Your task to perform on an android device: add a contact Image 0: 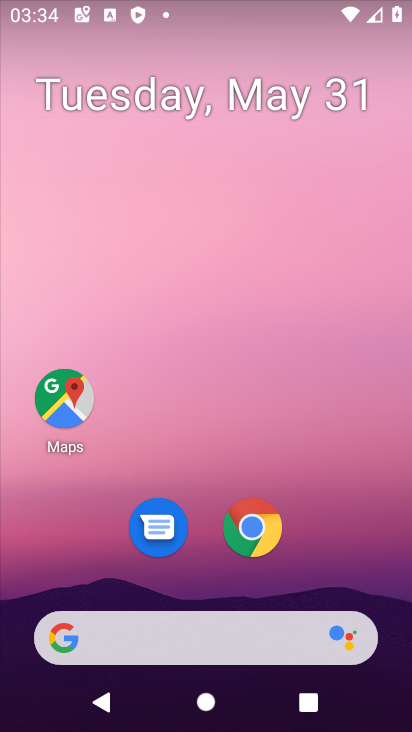
Step 0: drag from (397, 633) to (315, 2)
Your task to perform on an android device: add a contact Image 1: 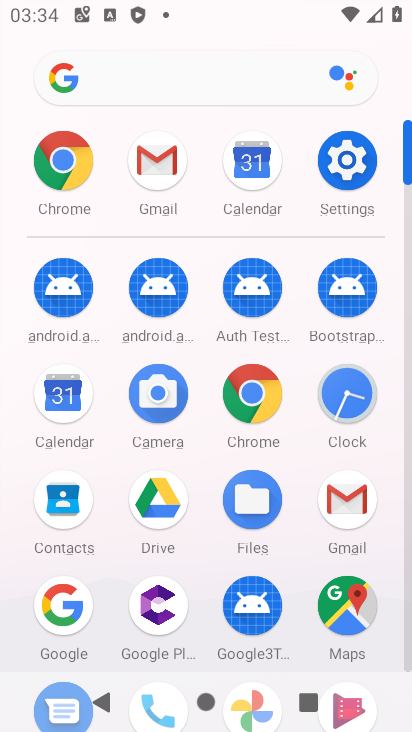
Step 1: click (66, 515)
Your task to perform on an android device: add a contact Image 2: 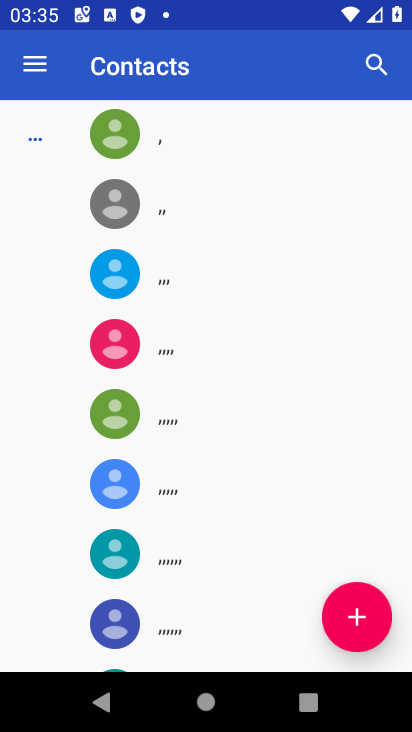
Step 2: click (358, 614)
Your task to perform on an android device: add a contact Image 3: 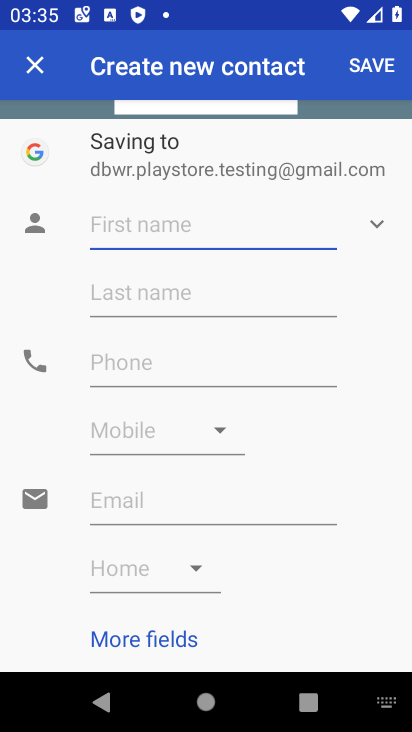
Step 3: type "jfghdfsdfgfh"
Your task to perform on an android device: add a contact Image 4: 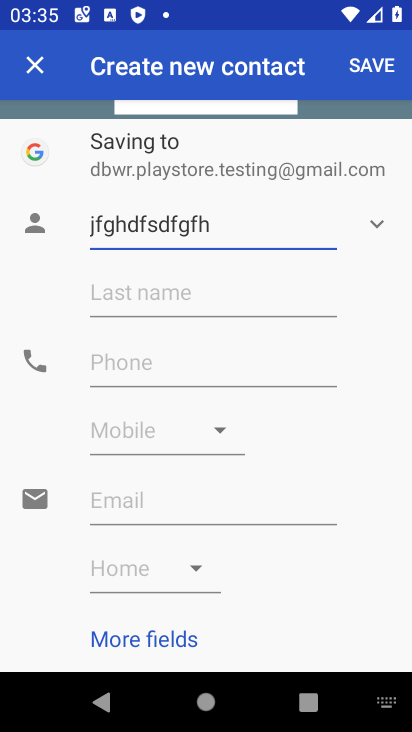
Step 4: click (146, 365)
Your task to perform on an android device: add a contact Image 5: 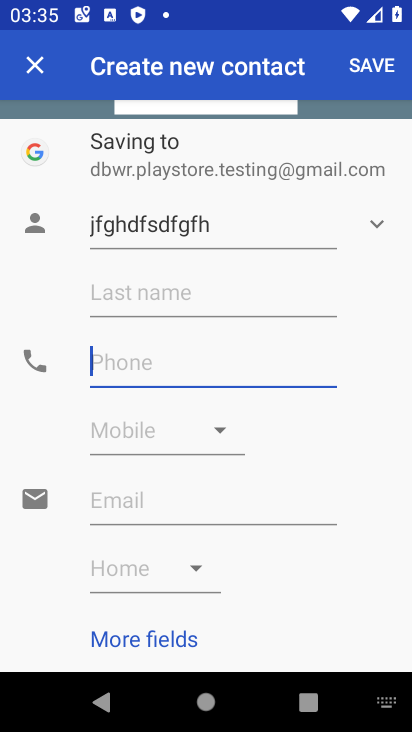
Step 5: type "0987654345"
Your task to perform on an android device: add a contact Image 6: 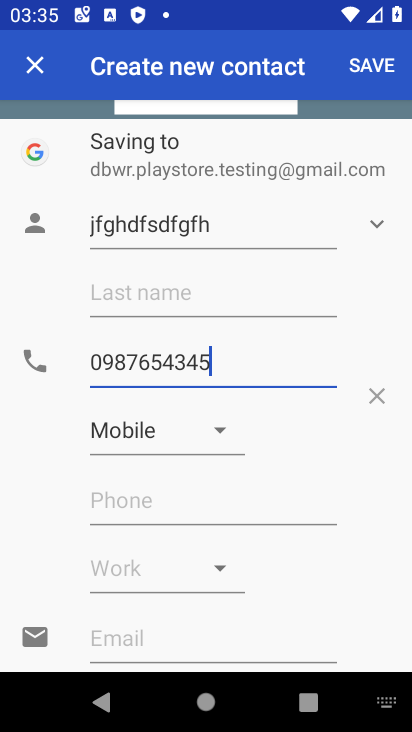
Step 6: click (368, 68)
Your task to perform on an android device: add a contact Image 7: 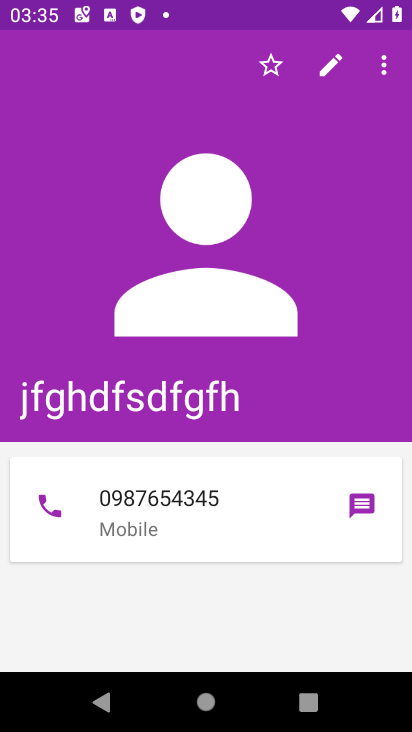
Step 7: task complete